Your task to perform on an android device: turn on wifi Image 0: 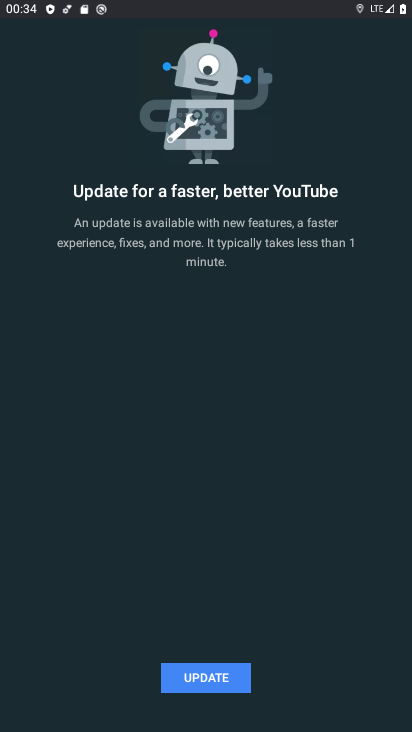
Step 0: press home button
Your task to perform on an android device: turn on wifi Image 1: 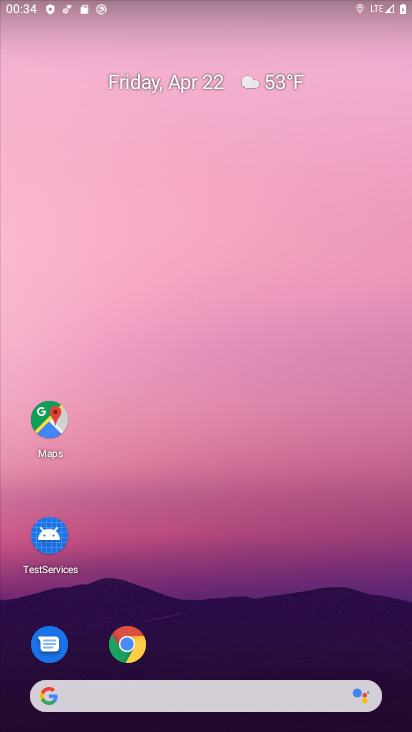
Step 1: drag from (249, 573) to (247, 119)
Your task to perform on an android device: turn on wifi Image 2: 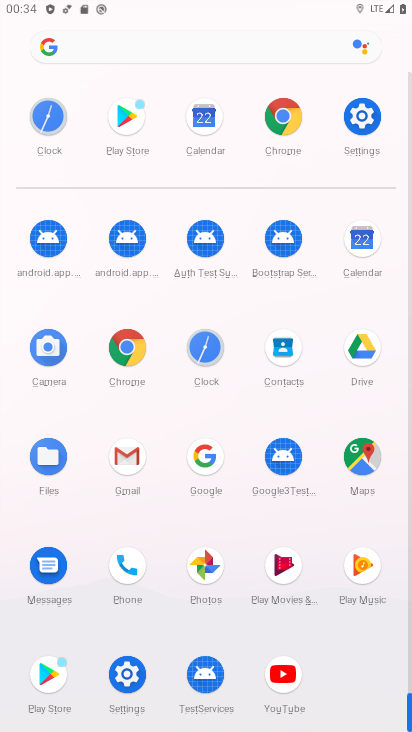
Step 2: click (363, 124)
Your task to perform on an android device: turn on wifi Image 3: 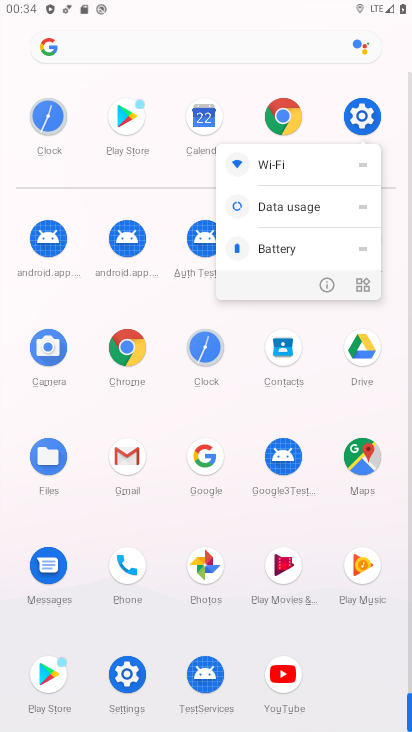
Step 3: click (368, 119)
Your task to perform on an android device: turn on wifi Image 4: 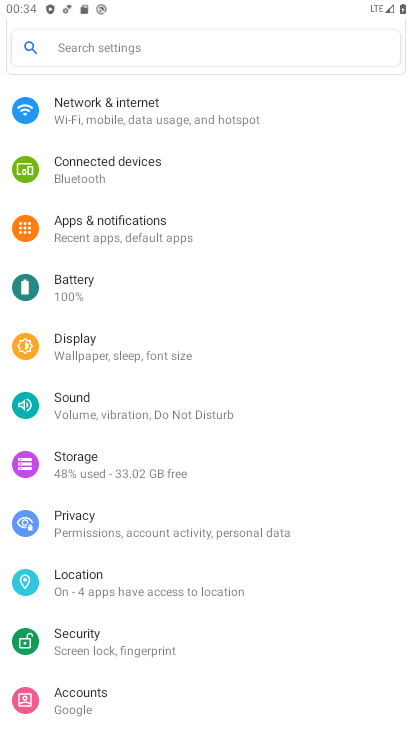
Step 4: click (187, 94)
Your task to perform on an android device: turn on wifi Image 5: 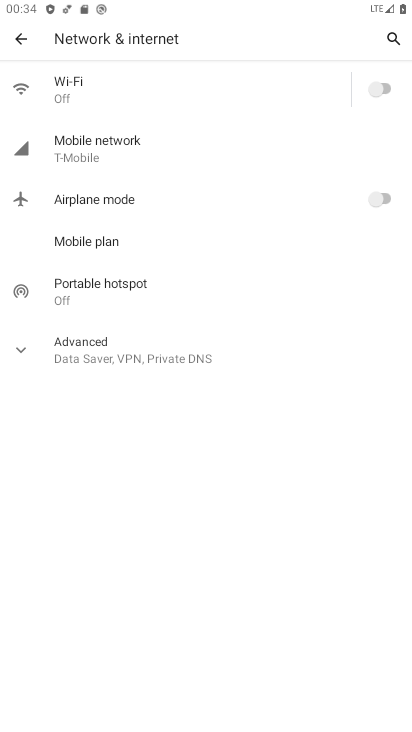
Step 5: click (375, 85)
Your task to perform on an android device: turn on wifi Image 6: 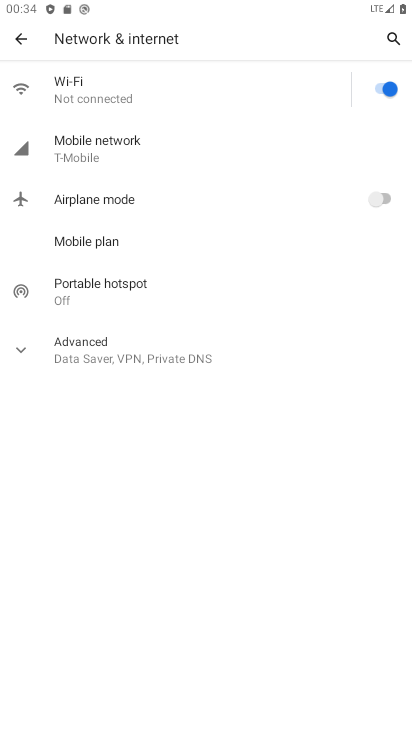
Step 6: task complete